Your task to perform on an android device: Is it going to rain today? Image 0: 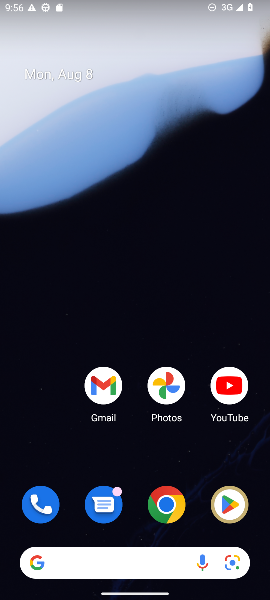
Step 0: click (128, 563)
Your task to perform on an android device: Is it going to rain today? Image 1: 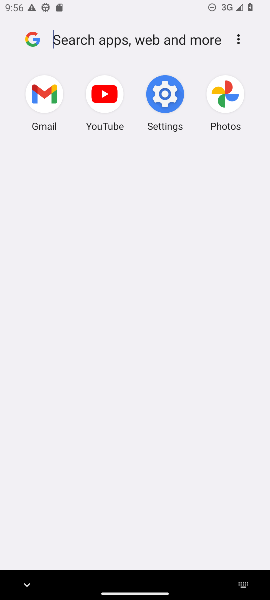
Step 1: click (30, 39)
Your task to perform on an android device: Is it going to rain today? Image 2: 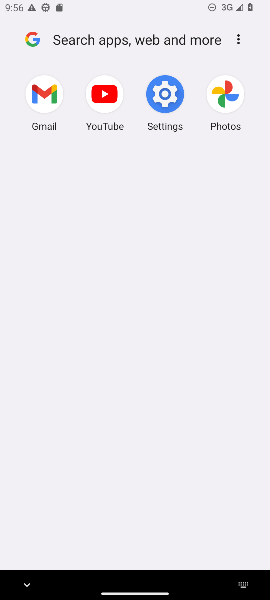
Step 2: type "google"
Your task to perform on an android device: Is it going to rain today? Image 3: 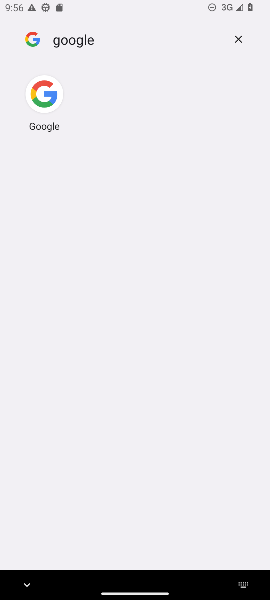
Step 3: click (41, 108)
Your task to perform on an android device: Is it going to rain today? Image 4: 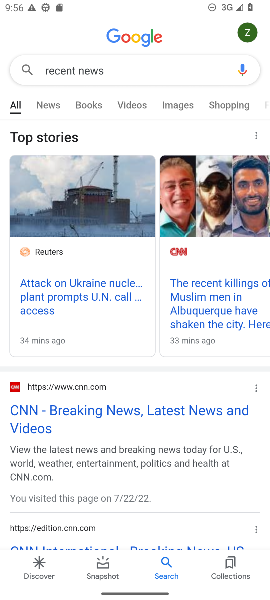
Step 4: click (91, 65)
Your task to perform on an android device: Is it going to rain today? Image 5: 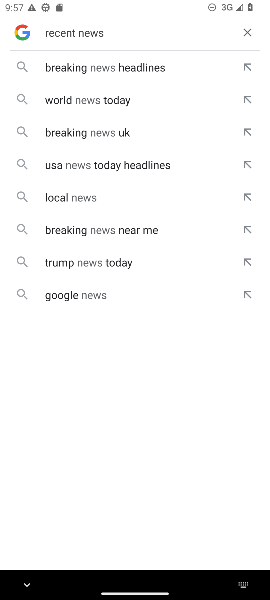
Step 5: click (240, 31)
Your task to perform on an android device: Is it going to rain today? Image 6: 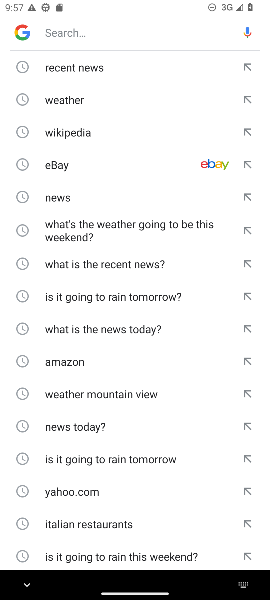
Step 6: type "weather"
Your task to perform on an android device: Is it going to rain today? Image 7: 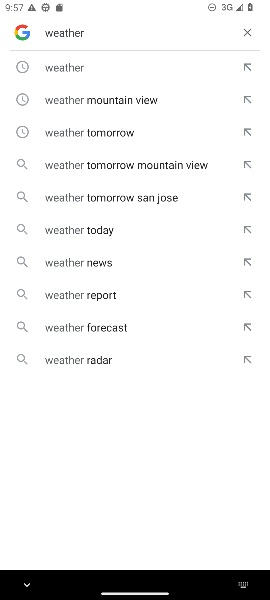
Step 7: click (85, 69)
Your task to perform on an android device: Is it going to rain today? Image 8: 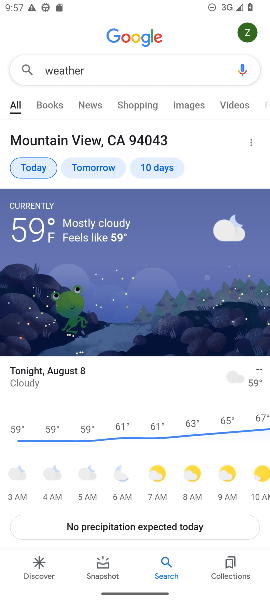
Step 8: task complete